Your task to perform on an android device: Open maps Image 0: 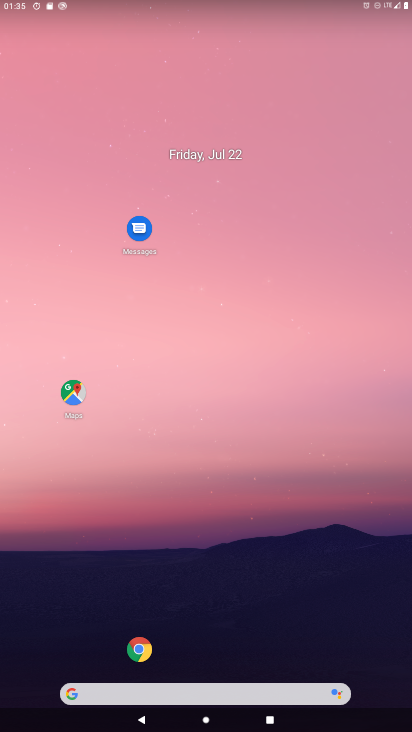
Step 0: click (71, 397)
Your task to perform on an android device: Open maps Image 1: 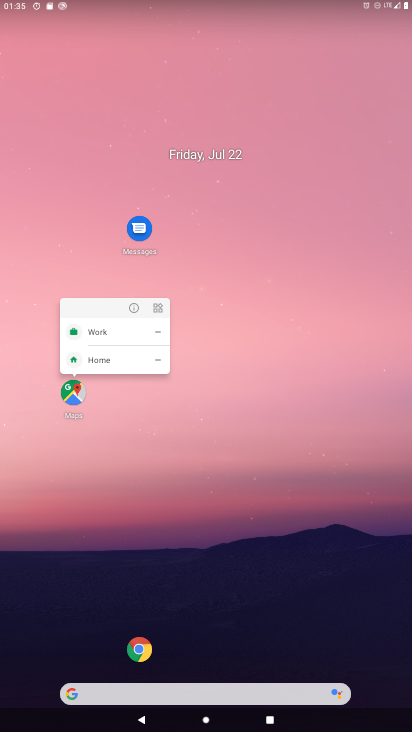
Step 1: click (74, 386)
Your task to perform on an android device: Open maps Image 2: 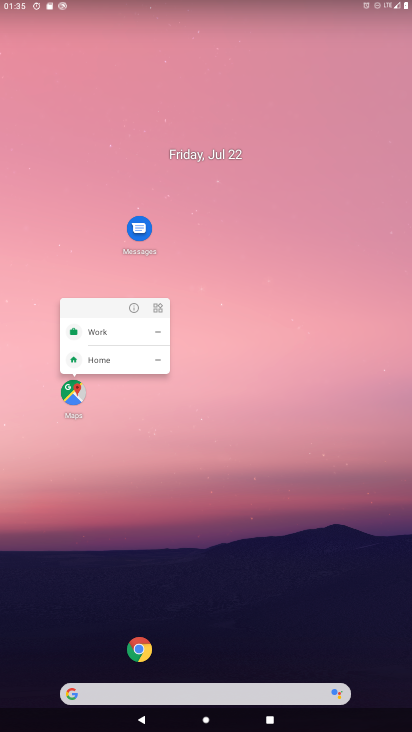
Step 2: click (76, 391)
Your task to perform on an android device: Open maps Image 3: 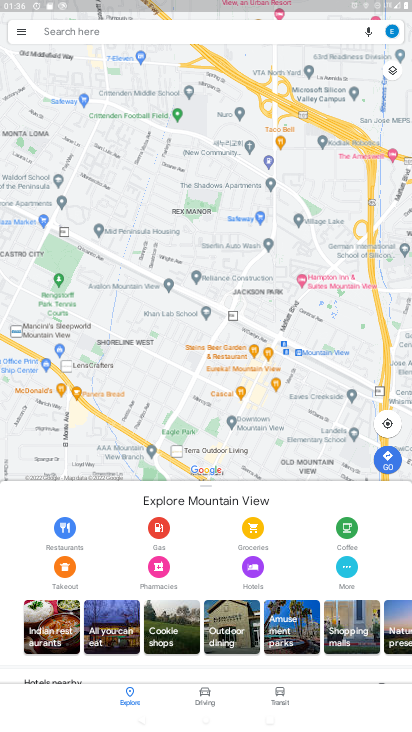
Step 3: task complete